Your task to perform on an android device: refresh tabs in the chrome app Image 0: 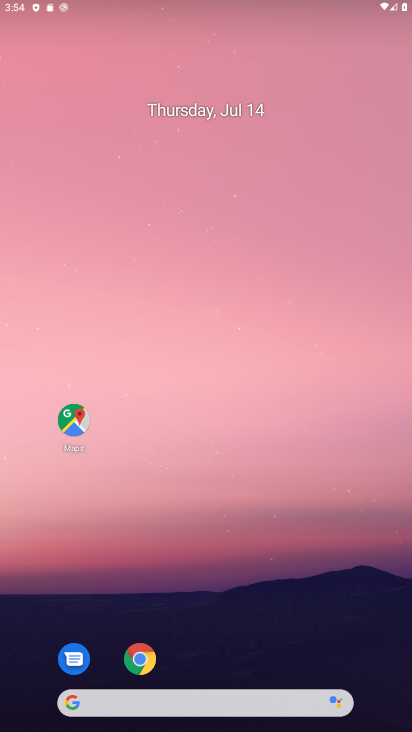
Step 0: drag from (299, 627) to (261, 65)
Your task to perform on an android device: refresh tabs in the chrome app Image 1: 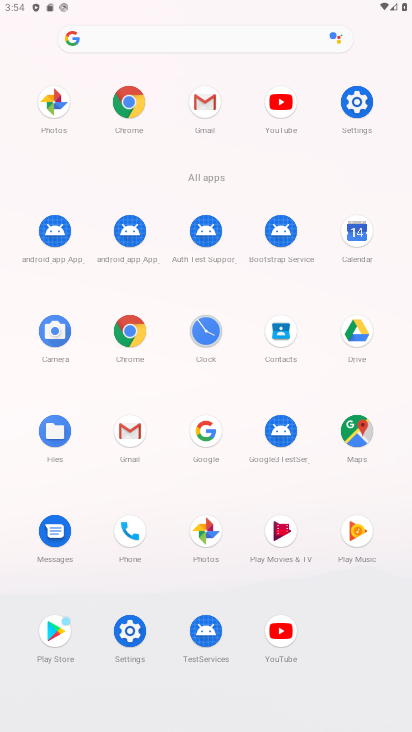
Step 1: click (124, 109)
Your task to perform on an android device: refresh tabs in the chrome app Image 2: 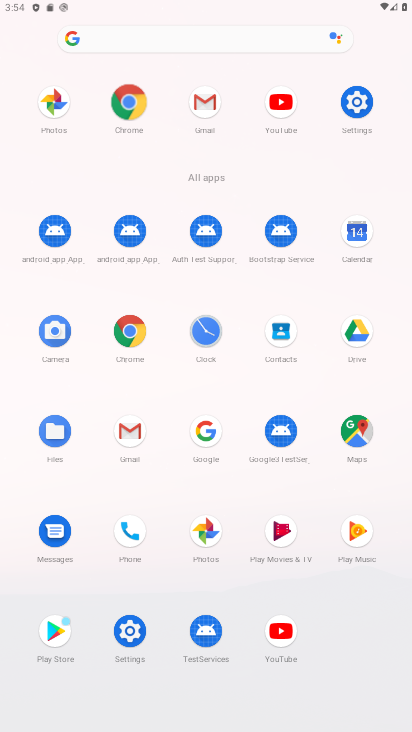
Step 2: click (130, 107)
Your task to perform on an android device: refresh tabs in the chrome app Image 3: 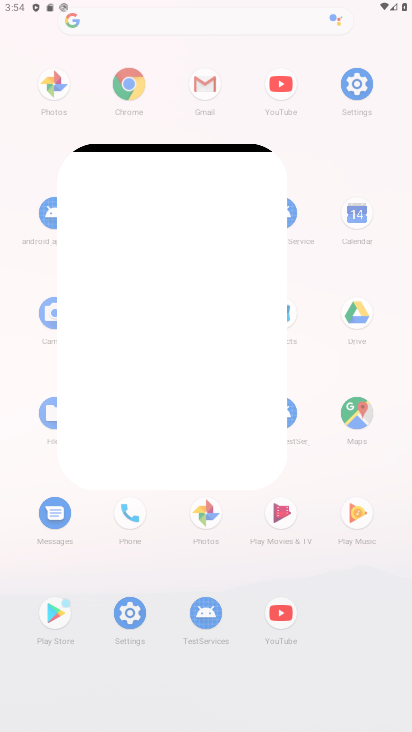
Step 3: click (133, 107)
Your task to perform on an android device: refresh tabs in the chrome app Image 4: 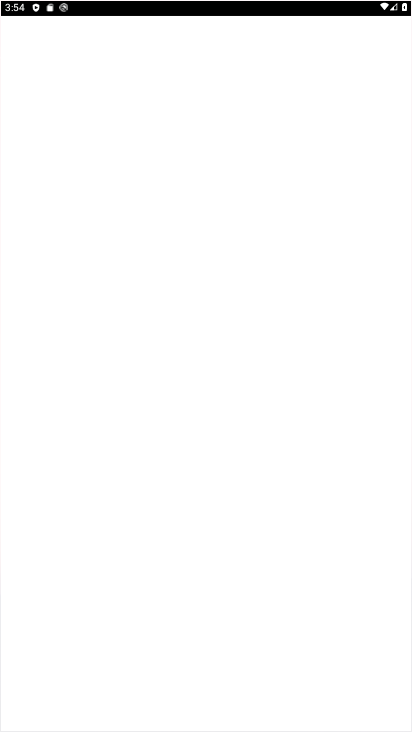
Step 4: click (136, 104)
Your task to perform on an android device: refresh tabs in the chrome app Image 5: 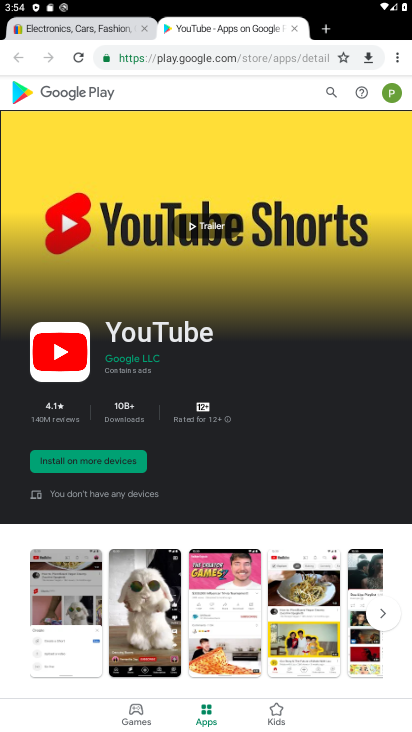
Step 5: drag from (400, 57) to (280, 391)
Your task to perform on an android device: refresh tabs in the chrome app Image 6: 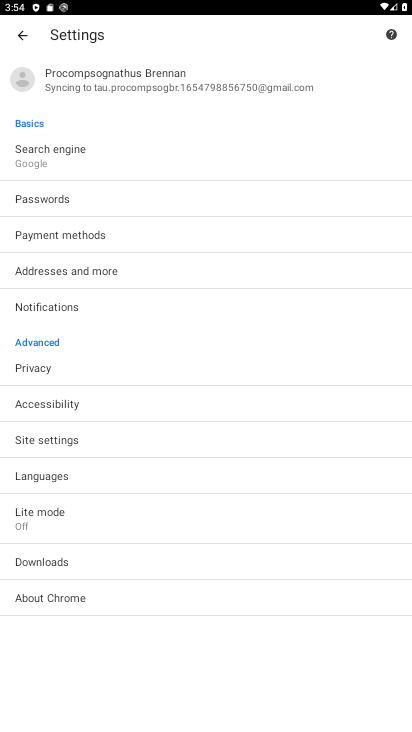
Step 6: click (17, 27)
Your task to perform on an android device: refresh tabs in the chrome app Image 7: 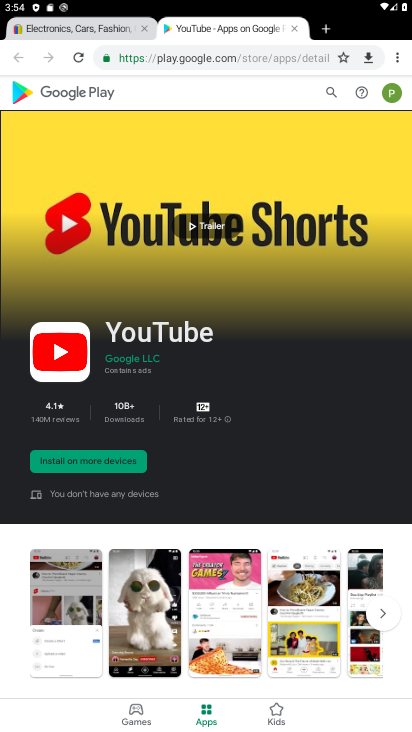
Step 7: click (70, 63)
Your task to perform on an android device: refresh tabs in the chrome app Image 8: 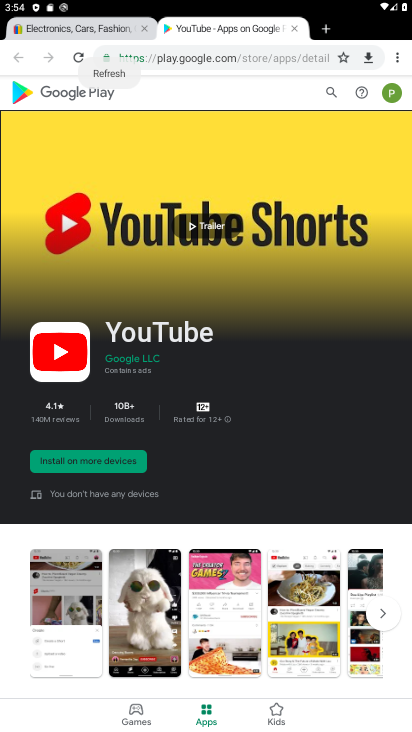
Step 8: task complete